Your task to perform on an android device: What's the weather going to be tomorrow? Image 0: 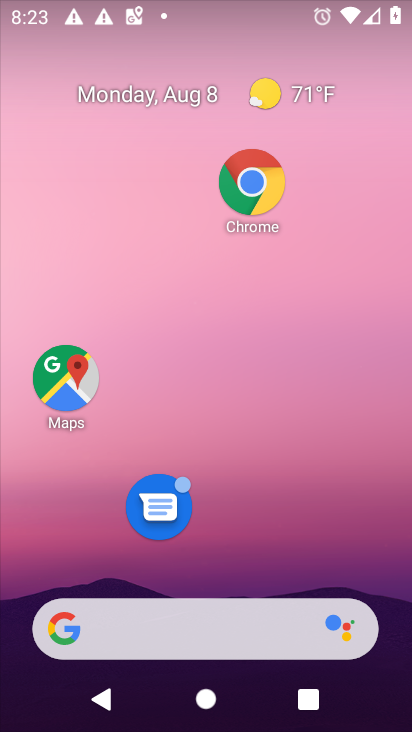
Step 0: drag from (217, 577) to (208, 54)
Your task to perform on an android device: What's the weather going to be tomorrow? Image 1: 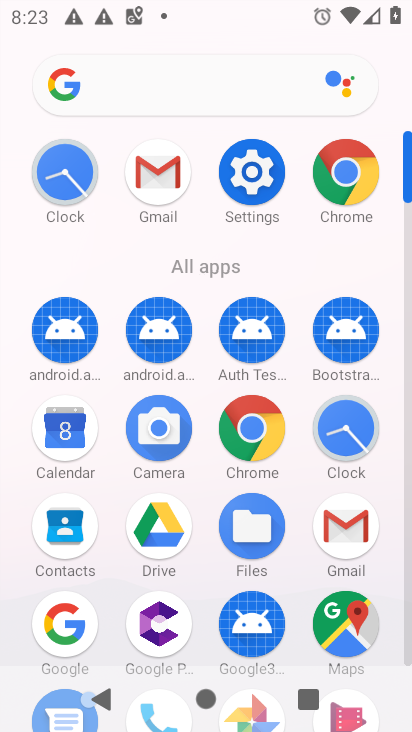
Step 1: click (75, 607)
Your task to perform on an android device: What's the weather going to be tomorrow? Image 2: 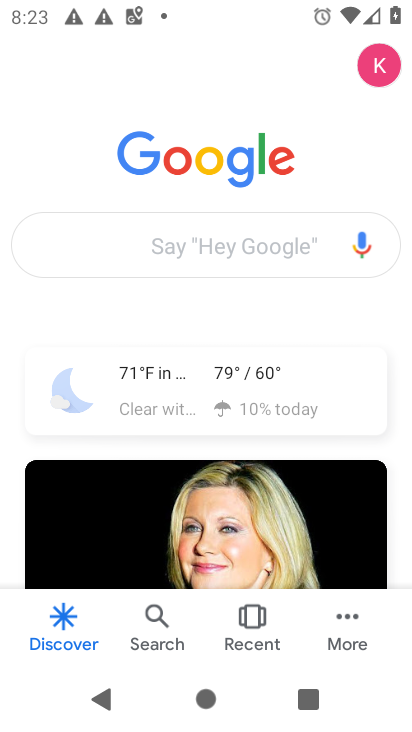
Step 2: click (187, 255)
Your task to perform on an android device: What's the weather going to be tomorrow? Image 3: 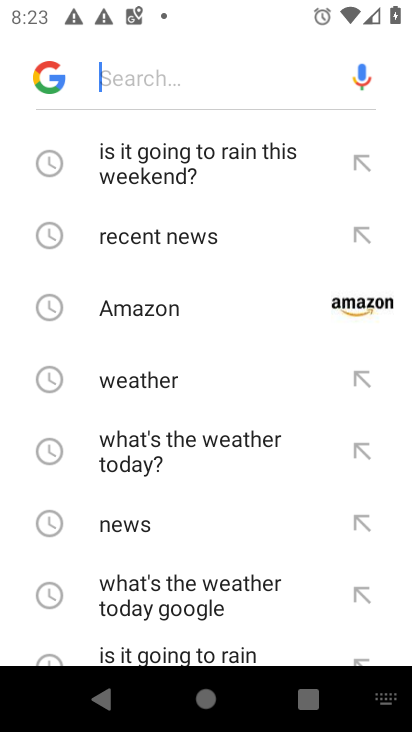
Step 3: click (141, 375)
Your task to perform on an android device: What's the weather going to be tomorrow? Image 4: 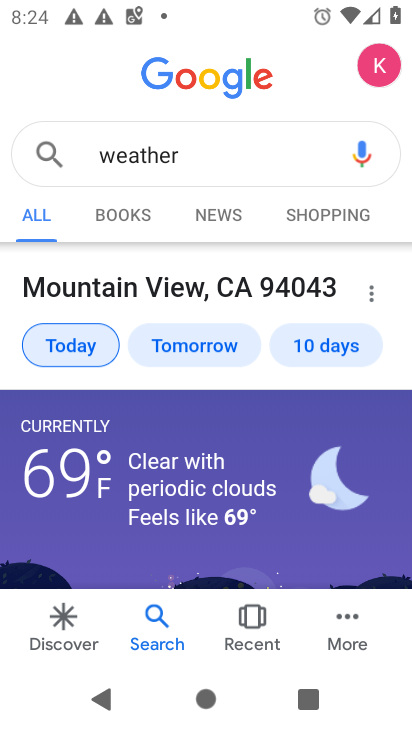
Step 4: click (155, 340)
Your task to perform on an android device: What's the weather going to be tomorrow? Image 5: 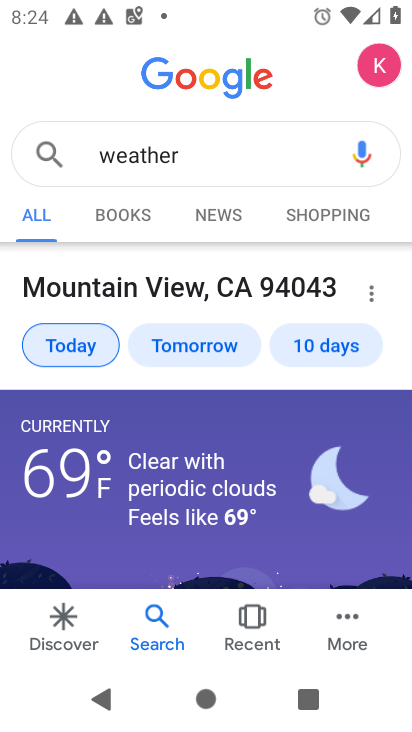
Step 5: click (155, 340)
Your task to perform on an android device: What's the weather going to be tomorrow? Image 6: 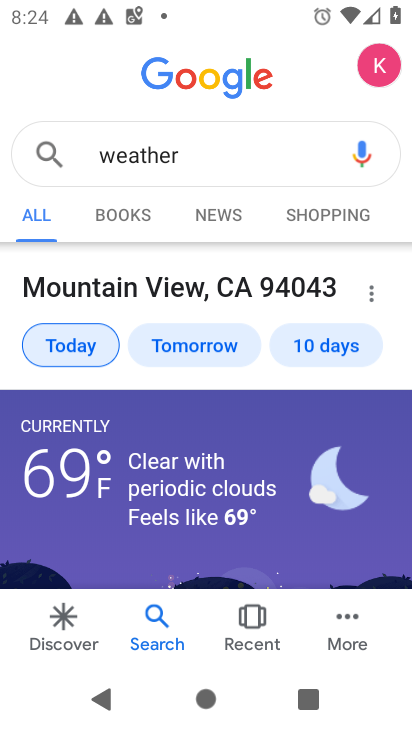
Step 6: click (170, 325)
Your task to perform on an android device: What's the weather going to be tomorrow? Image 7: 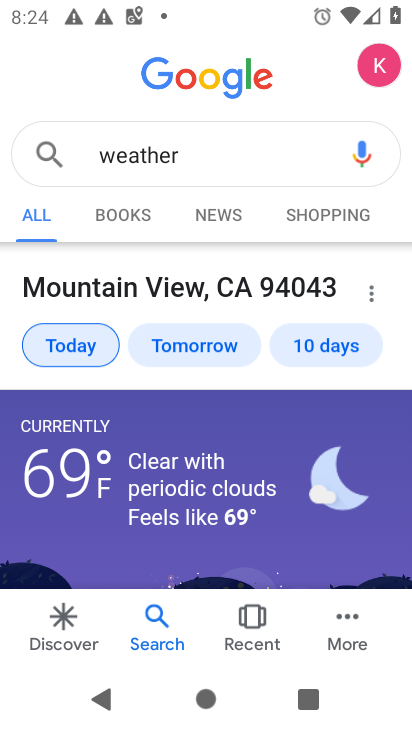
Step 7: click (170, 360)
Your task to perform on an android device: What's the weather going to be tomorrow? Image 8: 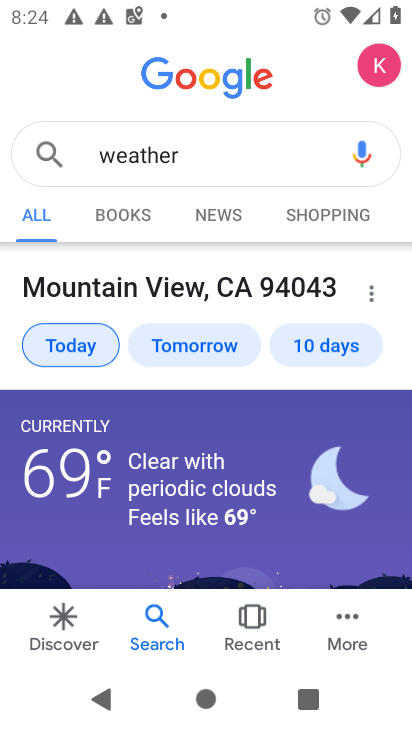
Step 8: click (215, 344)
Your task to perform on an android device: What's the weather going to be tomorrow? Image 9: 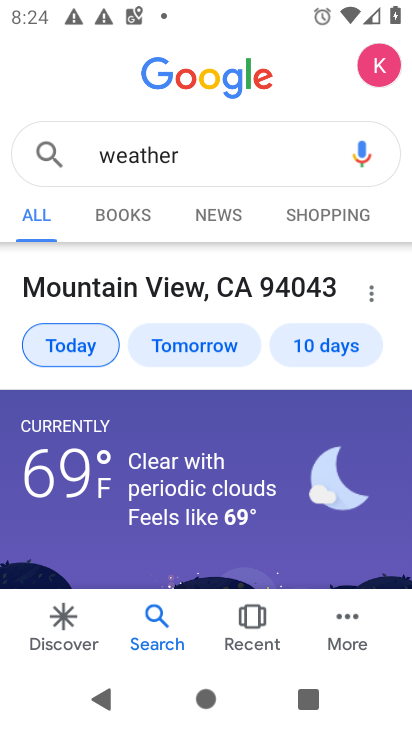
Step 9: click (332, 341)
Your task to perform on an android device: What's the weather going to be tomorrow? Image 10: 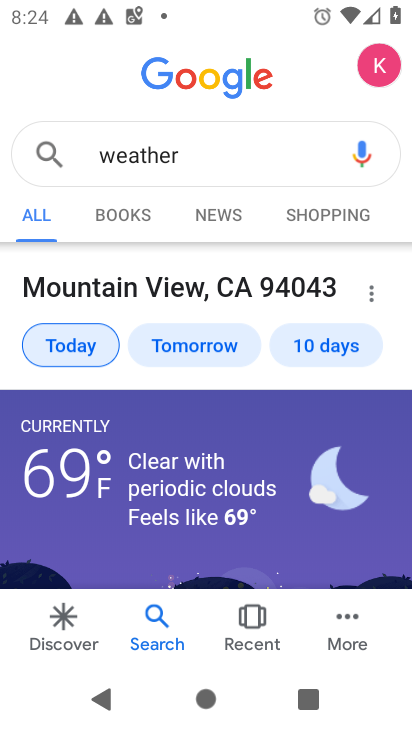
Step 10: task complete